Your task to perform on an android device: toggle notification dots Image 0: 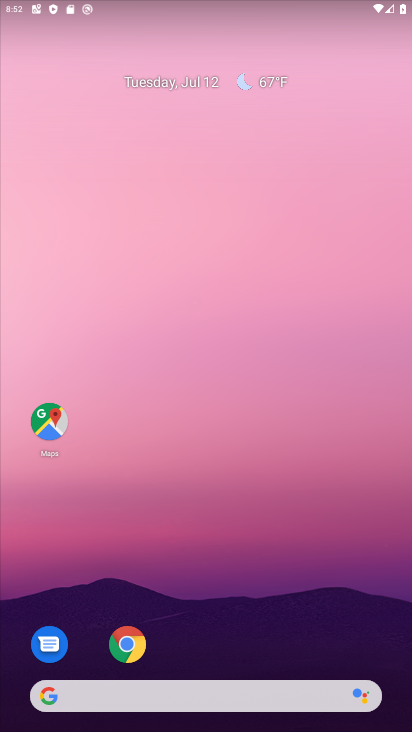
Step 0: click (210, 272)
Your task to perform on an android device: toggle notification dots Image 1: 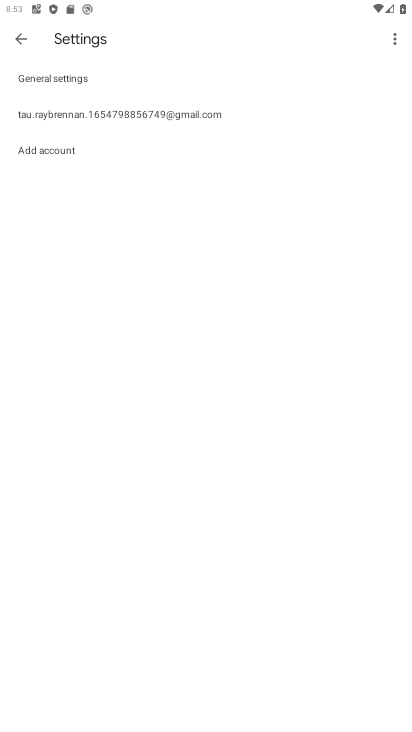
Step 1: press home button
Your task to perform on an android device: toggle notification dots Image 2: 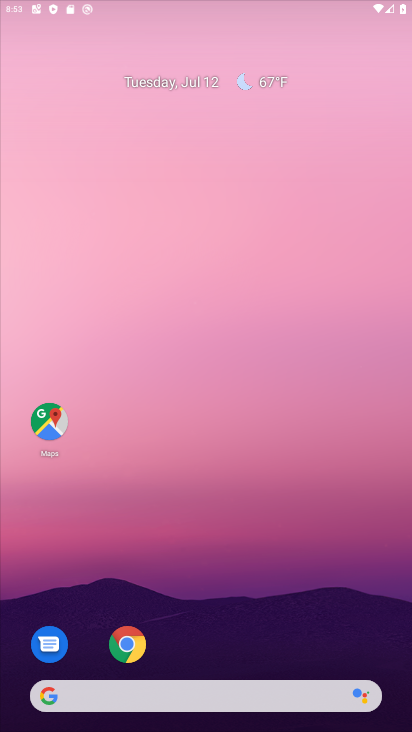
Step 2: drag from (391, 295) to (44, 285)
Your task to perform on an android device: toggle notification dots Image 3: 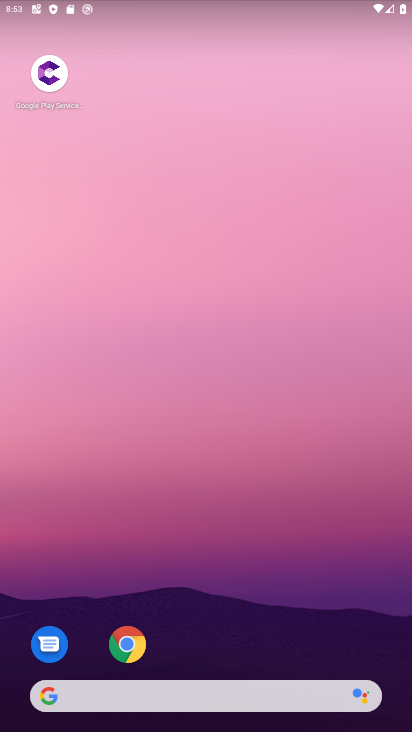
Step 3: drag from (244, 633) to (255, 253)
Your task to perform on an android device: toggle notification dots Image 4: 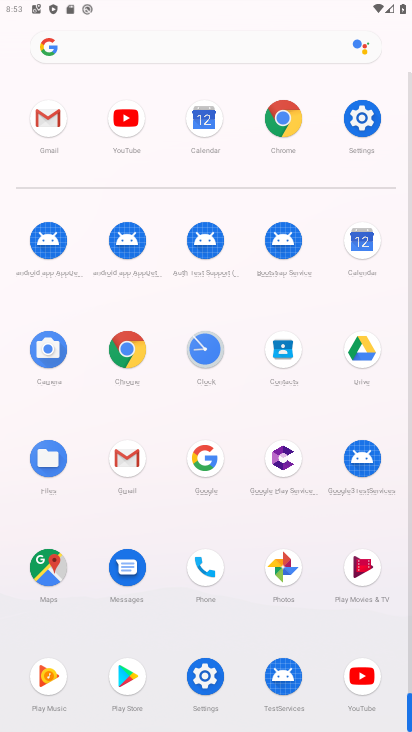
Step 4: click (357, 124)
Your task to perform on an android device: toggle notification dots Image 5: 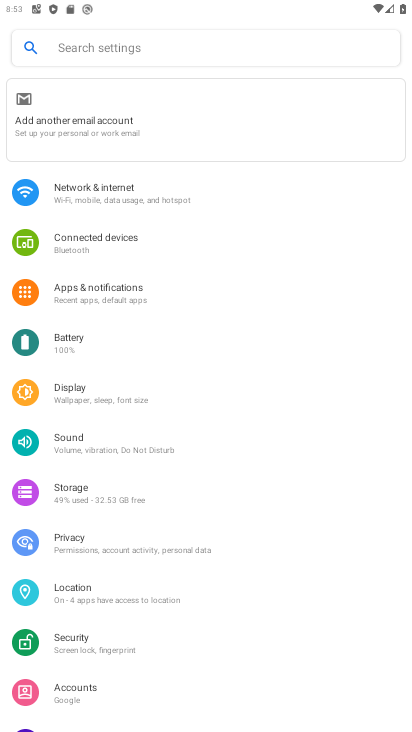
Step 5: drag from (212, 598) to (217, 278)
Your task to perform on an android device: toggle notification dots Image 6: 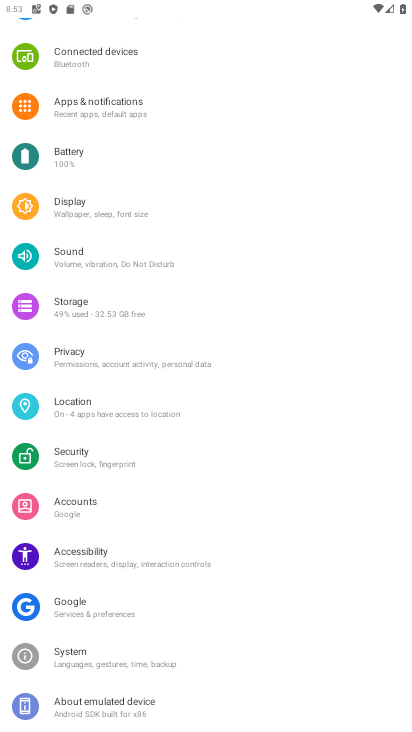
Step 6: click (122, 117)
Your task to perform on an android device: toggle notification dots Image 7: 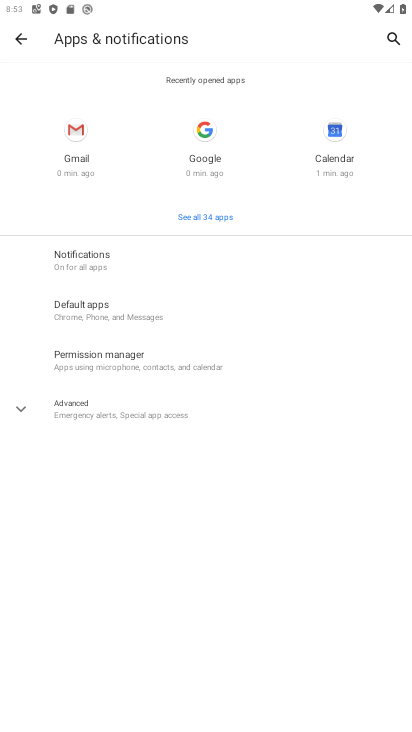
Step 7: click (88, 253)
Your task to perform on an android device: toggle notification dots Image 8: 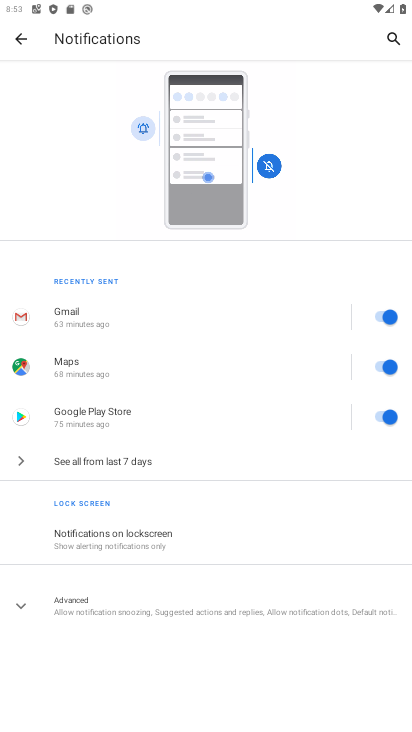
Step 8: click (108, 613)
Your task to perform on an android device: toggle notification dots Image 9: 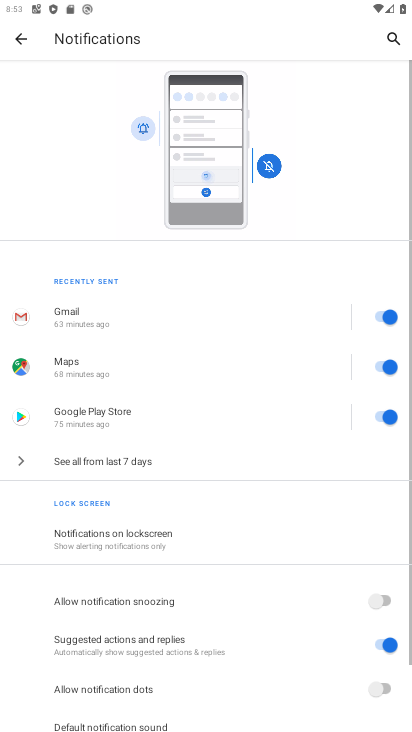
Step 9: drag from (125, 590) to (200, 183)
Your task to perform on an android device: toggle notification dots Image 10: 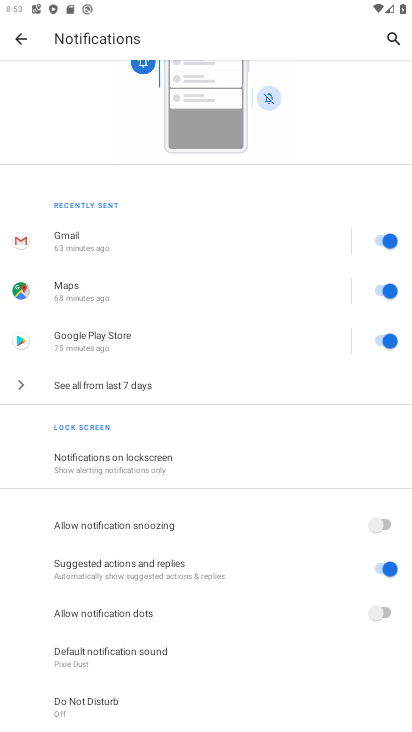
Step 10: click (303, 623)
Your task to perform on an android device: toggle notification dots Image 11: 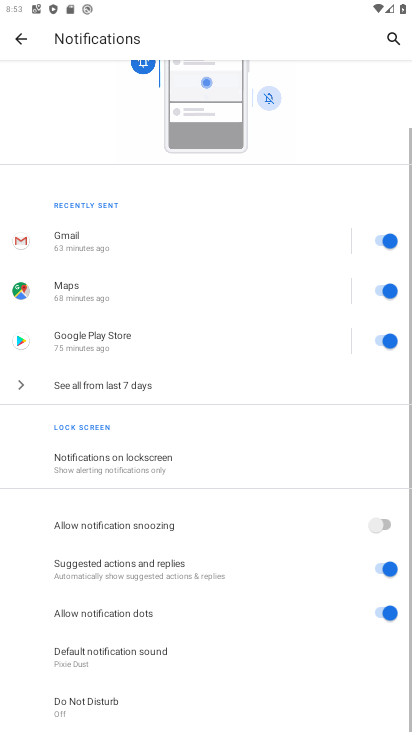
Step 11: task complete